Your task to perform on an android device: open a bookmark in the chrome app Image 0: 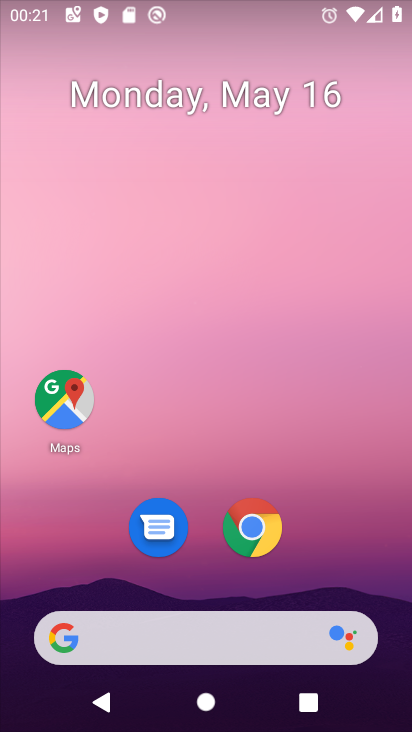
Step 0: click (264, 547)
Your task to perform on an android device: open a bookmark in the chrome app Image 1: 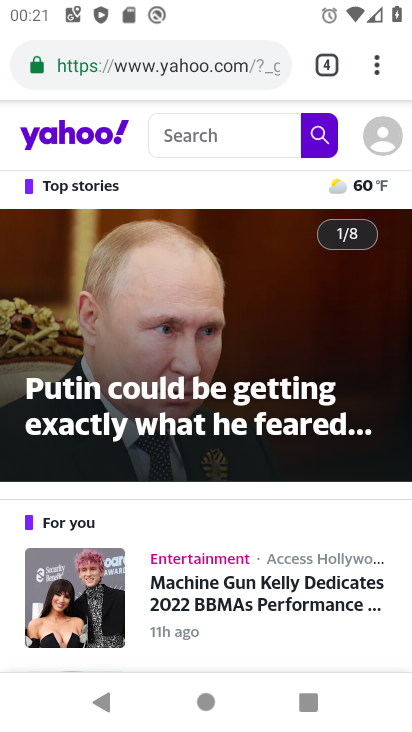
Step 1: click (374, 64)
Your task to perform on an android device: open a bookmark in the chrome app Image 2: 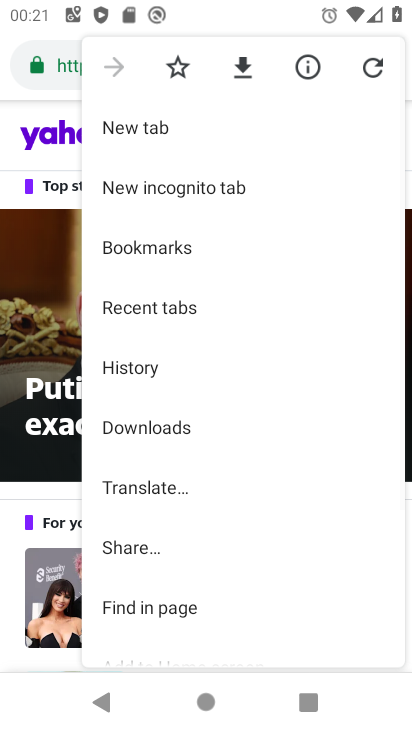
Step 2: click (256, 242)
Your task to perform on an android device: open a bookmark in the chrome app Image 3: 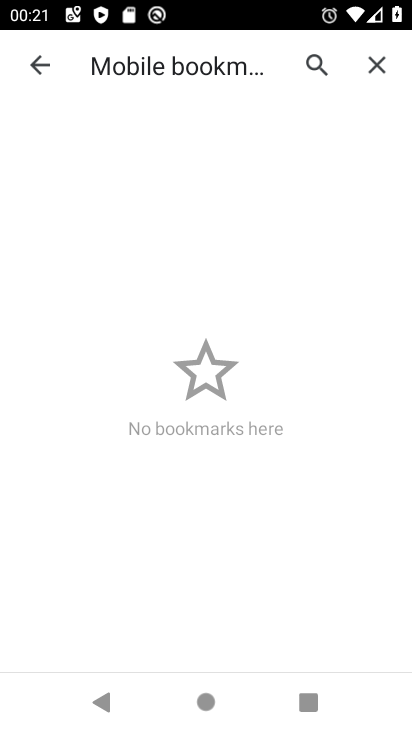
Step 3: task complete